Your task to perform on an android device: toggle wifi Image 0: 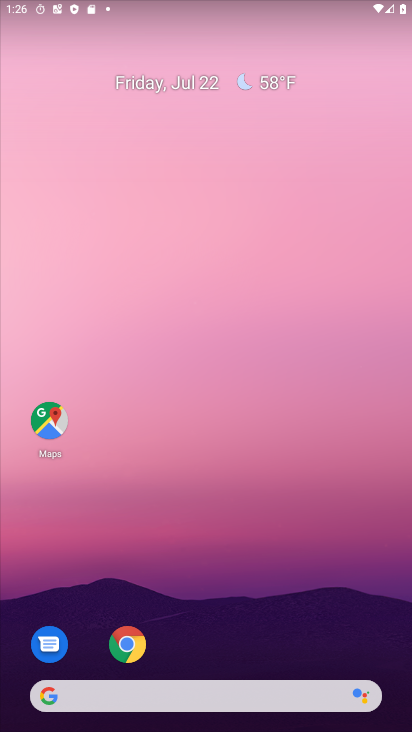
Step 0: drag from (206, 477) to (316, 52)
Your task to perform on an android device: toggle wifi Image 1: 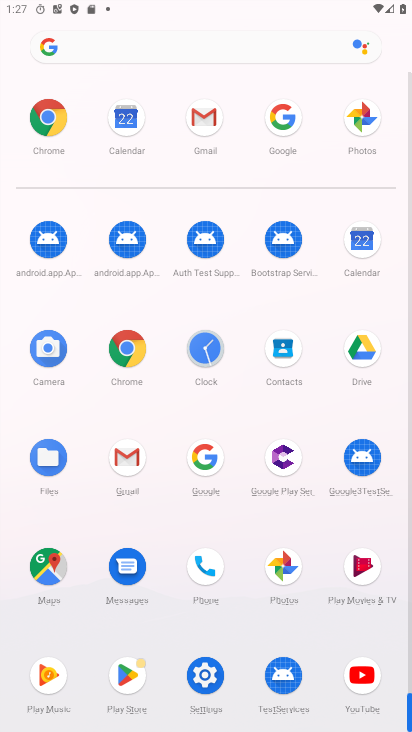
Step 1: click (197, 657)
Your task to perform on an android device: toggle wifi Image 2: 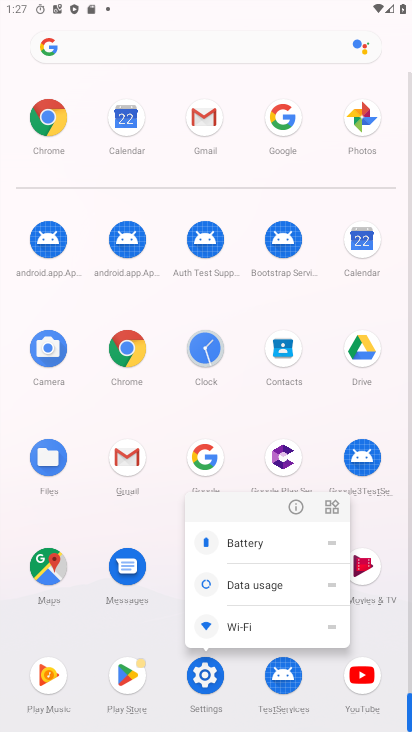
Step 2: click (297, 503)
Your task to perform on an android device: toggle wifi Image 3: 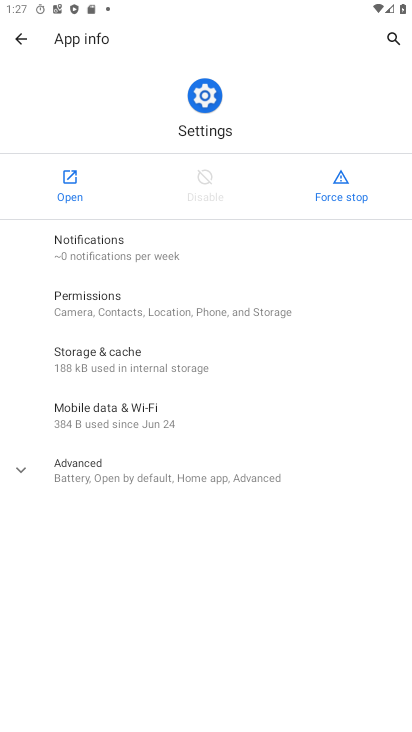
Step 3: click (87, 189)
Your task to perform on an android device: toggle wifi Image 4: 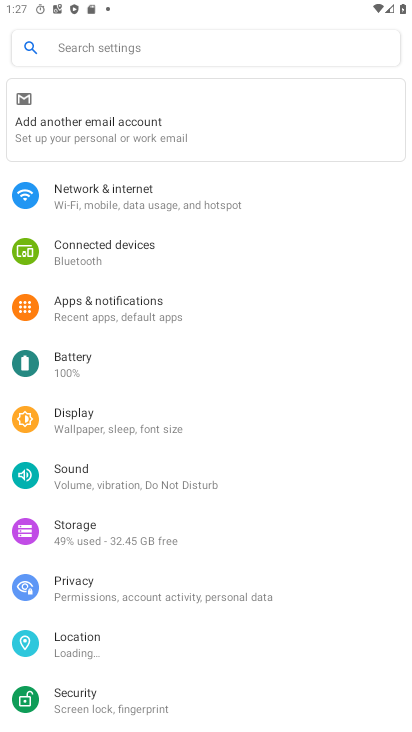
Step 4: click (102, 205)
Your task to perform on an android device: toggle wifi Image 5: 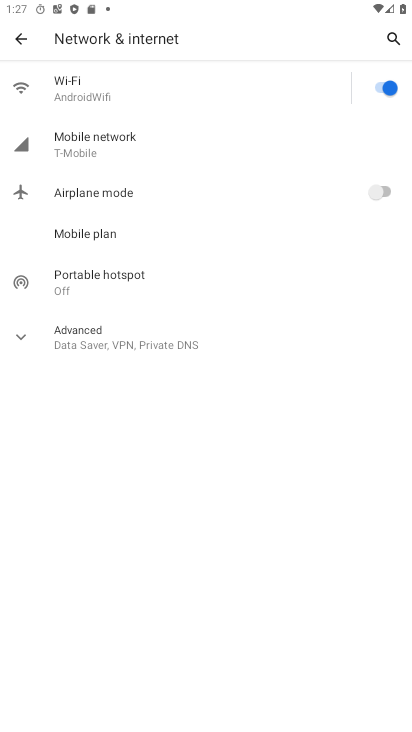
Step 5: click (154, 106)
Your task to perform on an android device: toggle wifi Image 6: 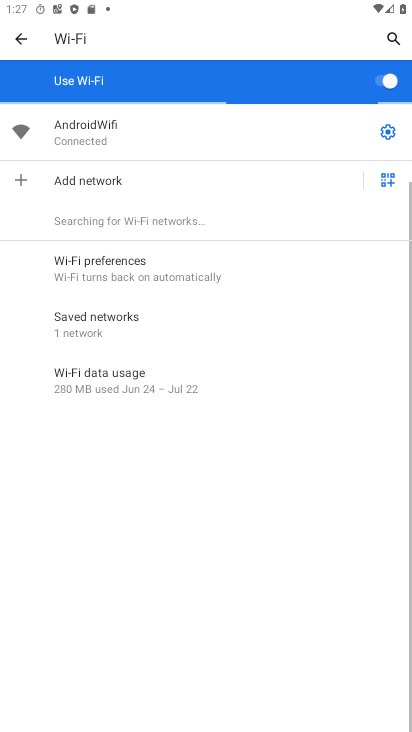
Step 6: drag from (211, 531) to (290, 236)
Your task to perform on an android device: toggle wifi Image 7: 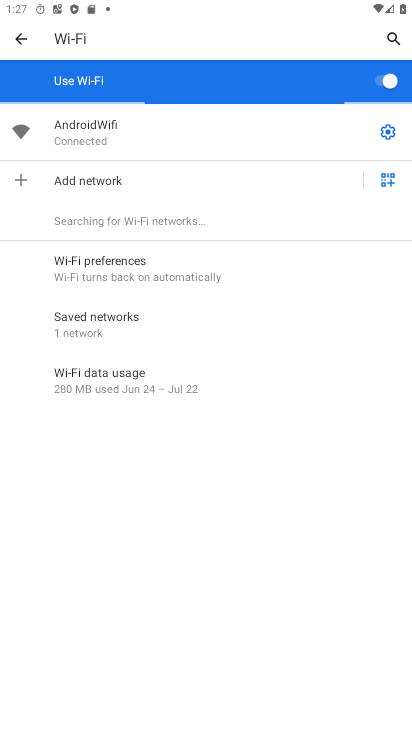
Step 7: drag from (199, 413) to (239, 242)
Your task to perform on an android device: toggle wifi Image 8: 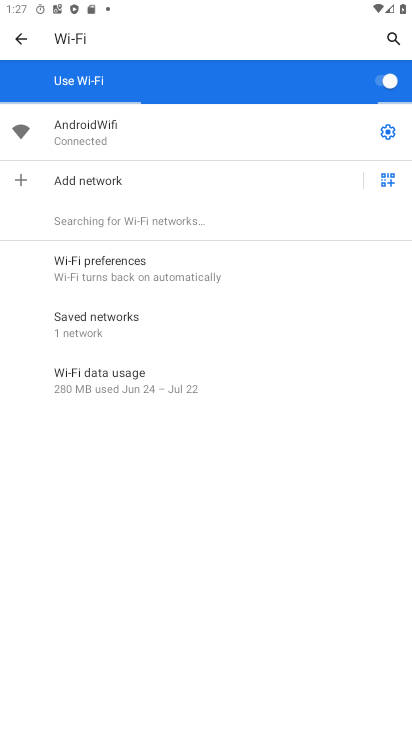
Step 8: drag from (186, 570) to (212, 262)
Your task to perform on an android device: toggle wifi Image 9: 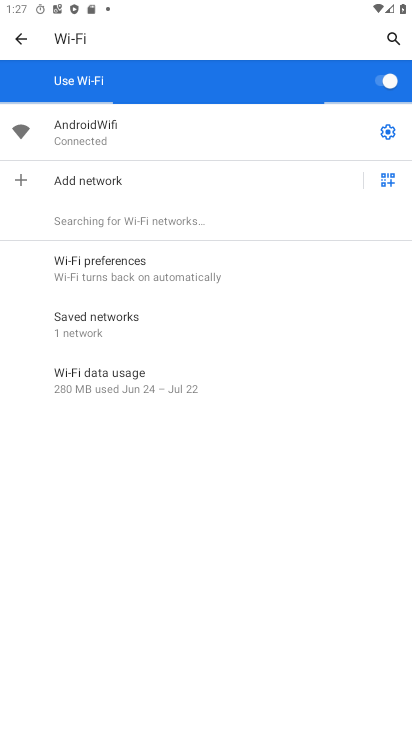
Step 9: click (386, 77)
Your task to perform on an android device: toggle wifi Image 10: 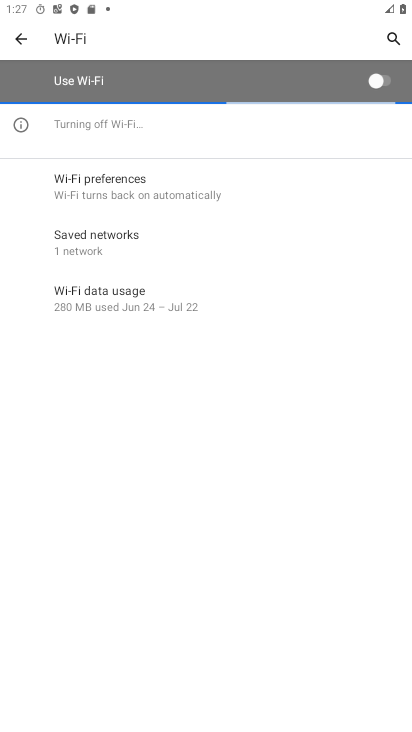
Step 10: task complete